Your task to perform on an android device: turn off airplane mode Image 0: 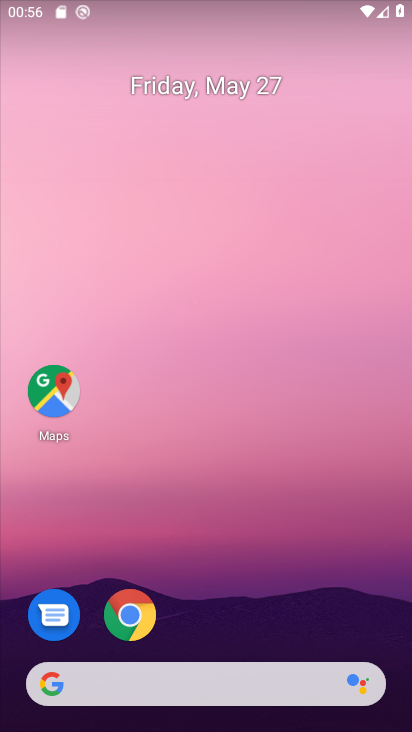
Step 0: drag from (312, 607) to (353, 257)
Your task to perform on an android device: turn off airplane mode Image 1: 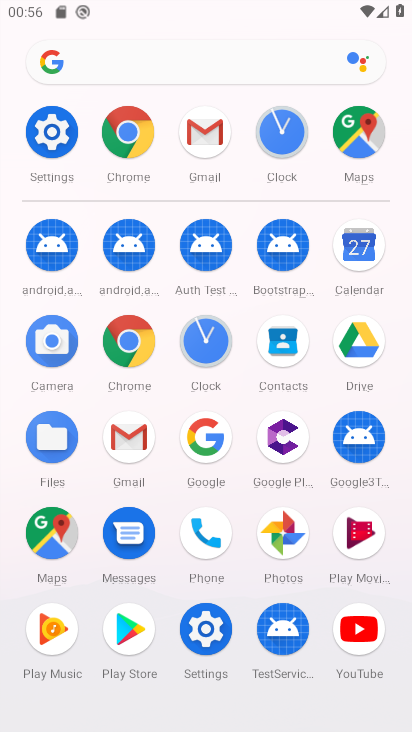
Step 1: click (213, 643)
Your task to perform on an android device: turn off airplane mode Image 2: 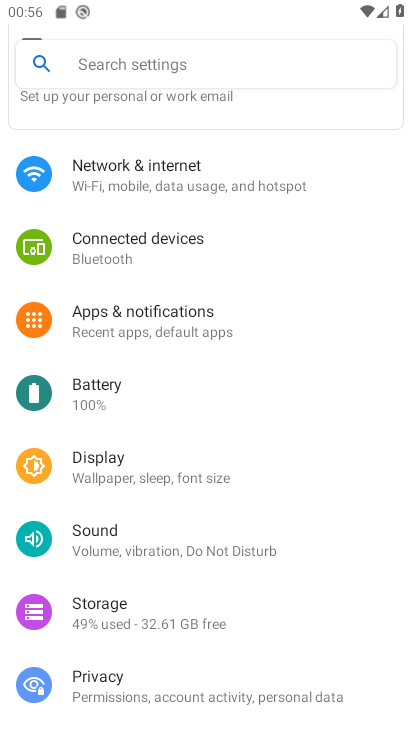
Step 2: drag from (322, 543) to (332, 489)
Your task to perform on an android device: turn off airplane mode Image 3: 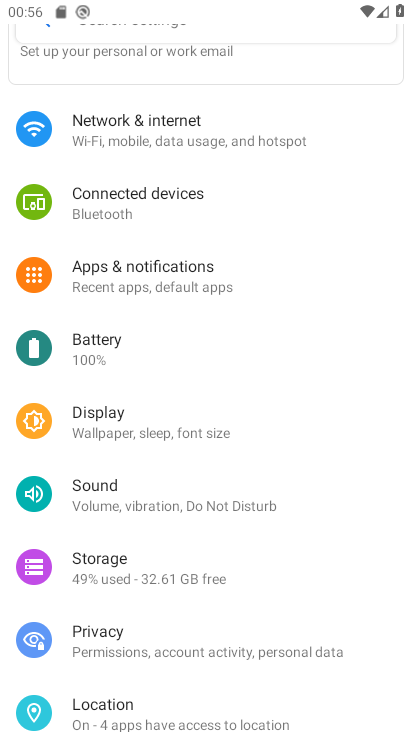
Step 3: drag from (337, 578) to (347, 514)
Your task to perform on an android device: turn off airplane mode Image 4: 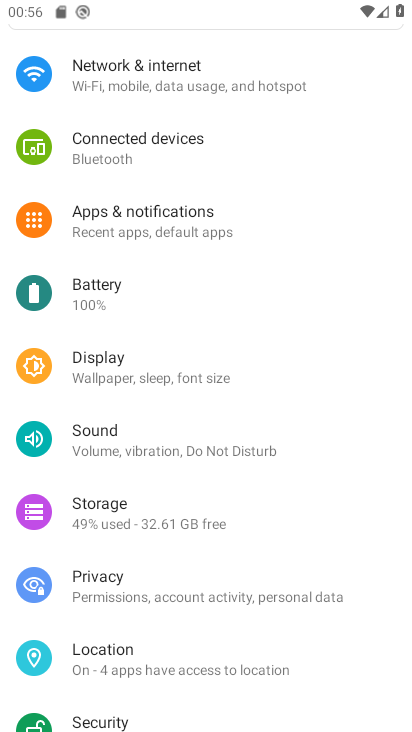
Step 4: drag from (336, 642) to (337, 563)
Your task to perform on an android device: turn off airplane mode Image 5: 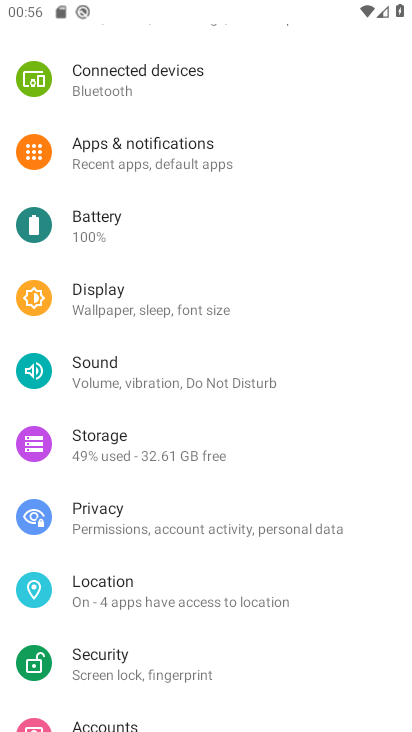
Step 5: drag from (337, 656) to (337, 583)
Your task to perform on an android device: turn off airplane mode Image 6: 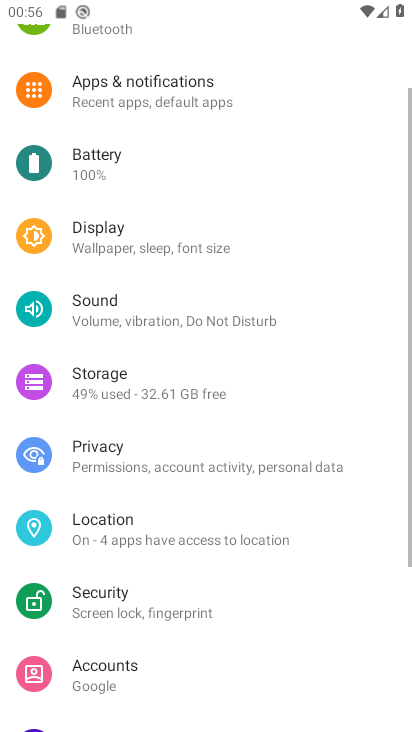
Step 6: drag from (337, 660) to (338, 600)
Your task to perform on an android device: turn off airplane mode Image 7: 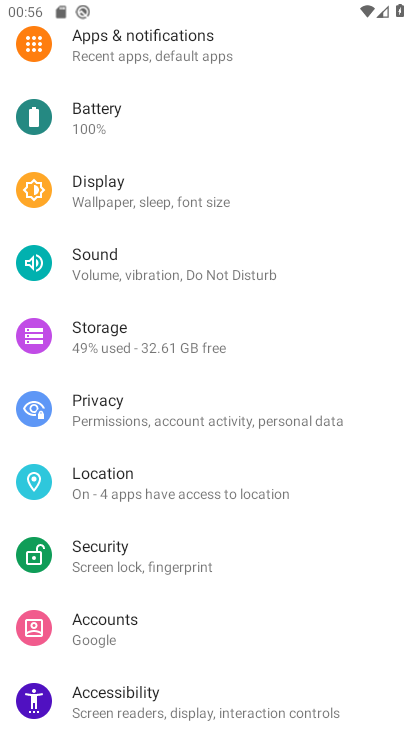
Step 7: click (342, 635)
Your task to perform on an android device: turn off airplane mode Image 8: 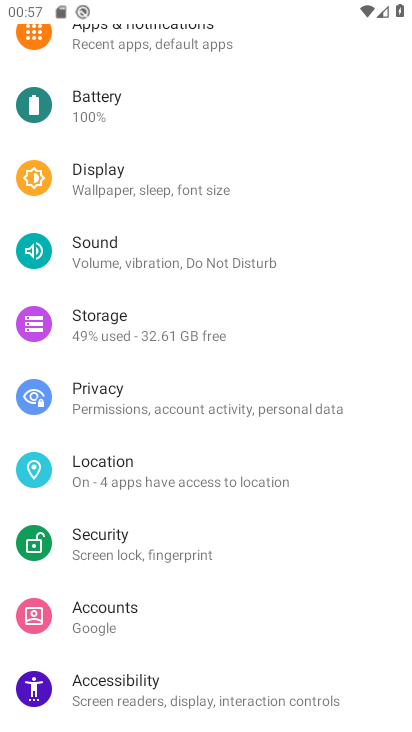
Step 8: drag from (284, 172) to (308, 341)
Your task to perform on an android device: turn off airplane mode Image 9: 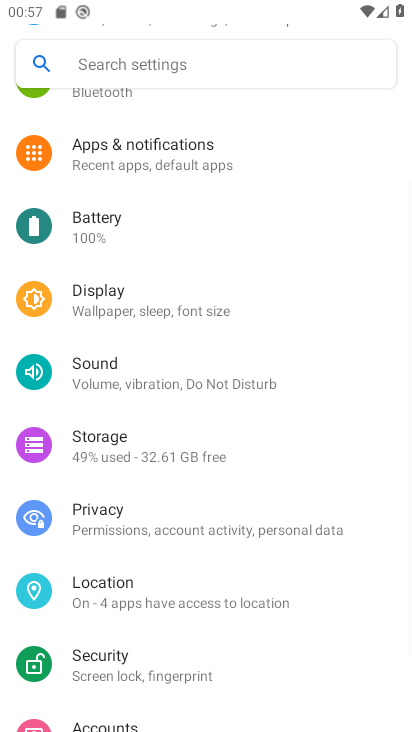
Step 9: drag from (299, 189) to (299, 330)
Your task to perform on an android device: turn off airplane mode Image 10: 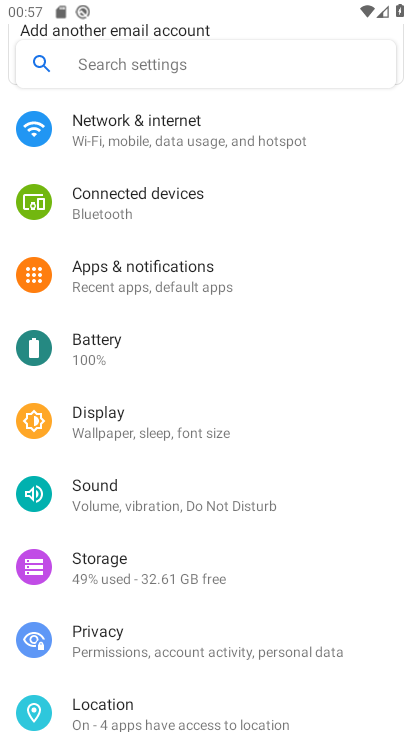
Step 10: click (249, 134)
Your task to perform on an android device: turn off airplane mode Image 11: 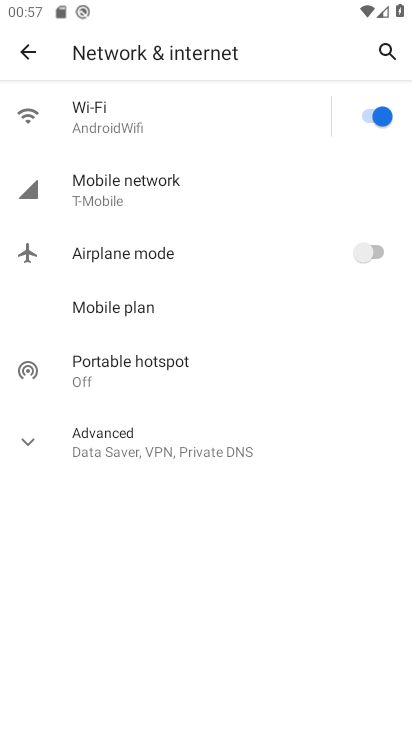
Step 11: task complete